Your task to perform on an android device: Go to notification settings Image 0: 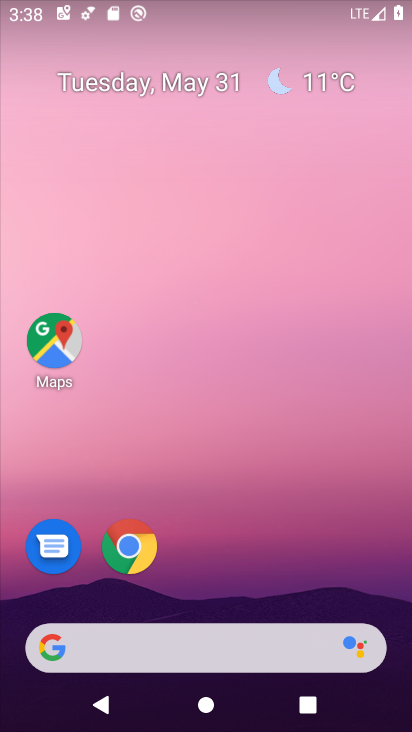
Step 0: drag from (256, 543) to (121, 51)
Your task to perform on an android device: Go to notification settings Image 1: 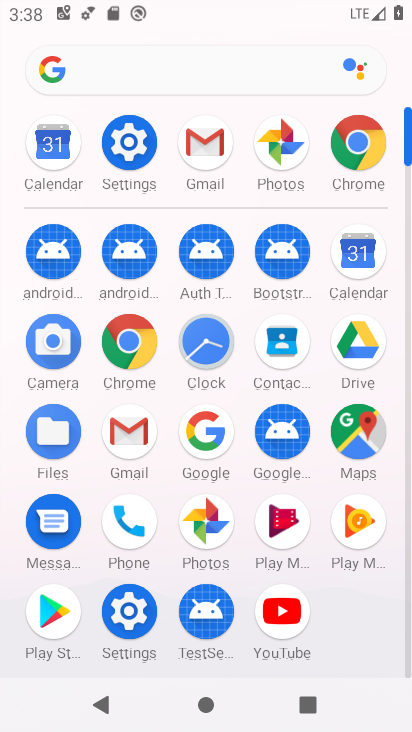
Step 1: click (127, 153)
Your task to perform on an android device: Go to notification settings Image 2: 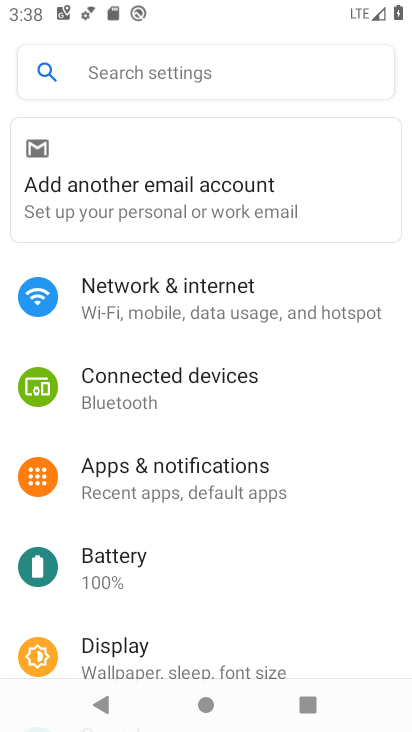
Step 2: click (218, 472)
Your task to perform on an android device: Go to notification settings Image 3: 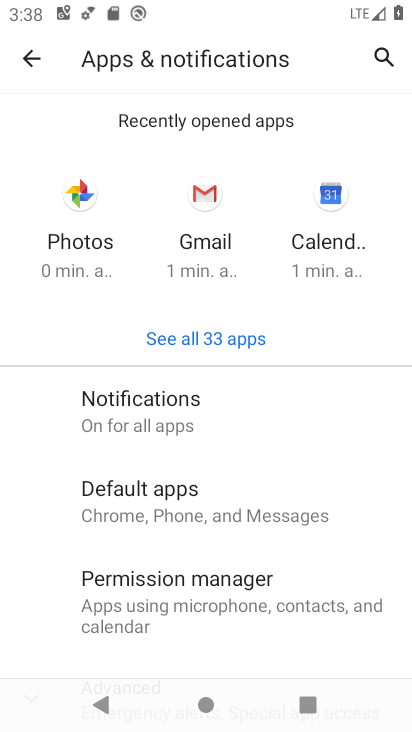
Step 3: task complete